Your task to perform on an android device: open app "McDonald's" Image 0: 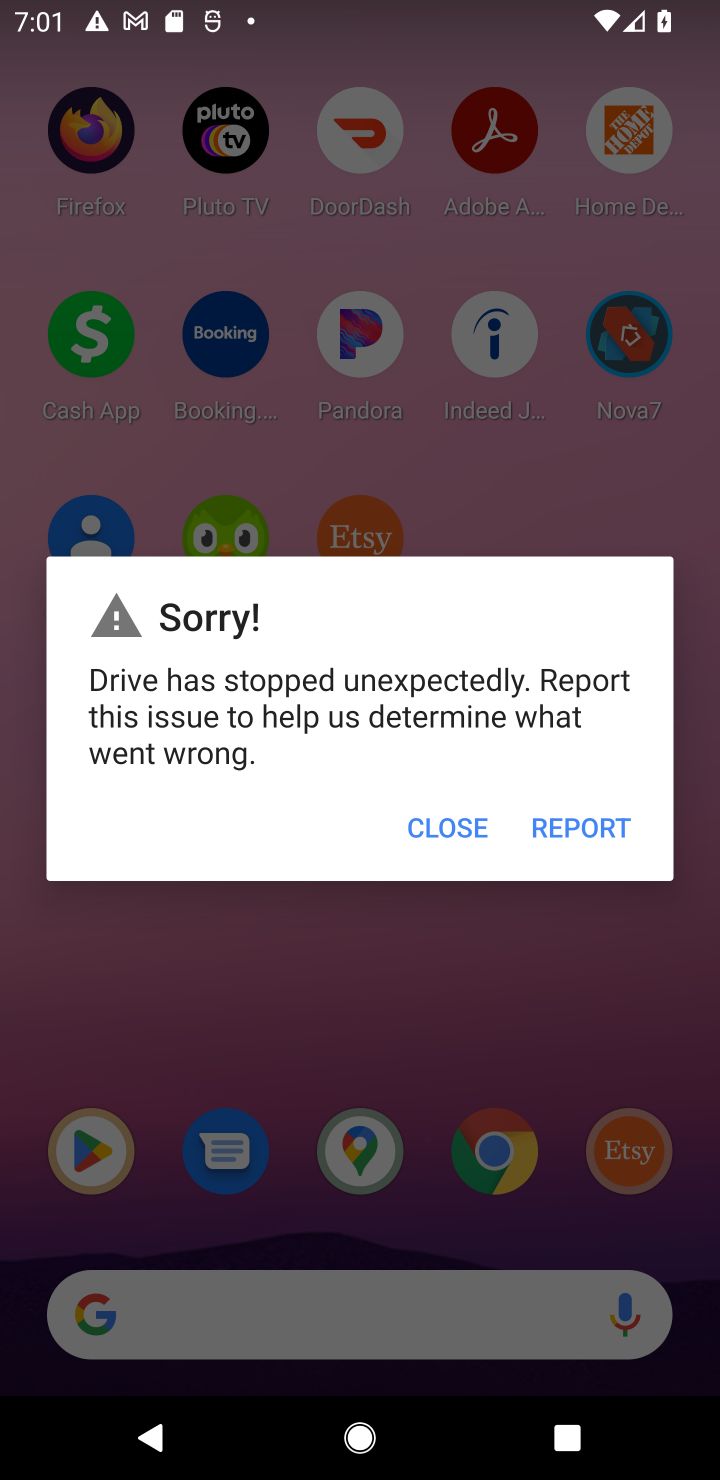
Step 0: press home button
Your task to perform on an android device: open app "McDonald's" Image 1: 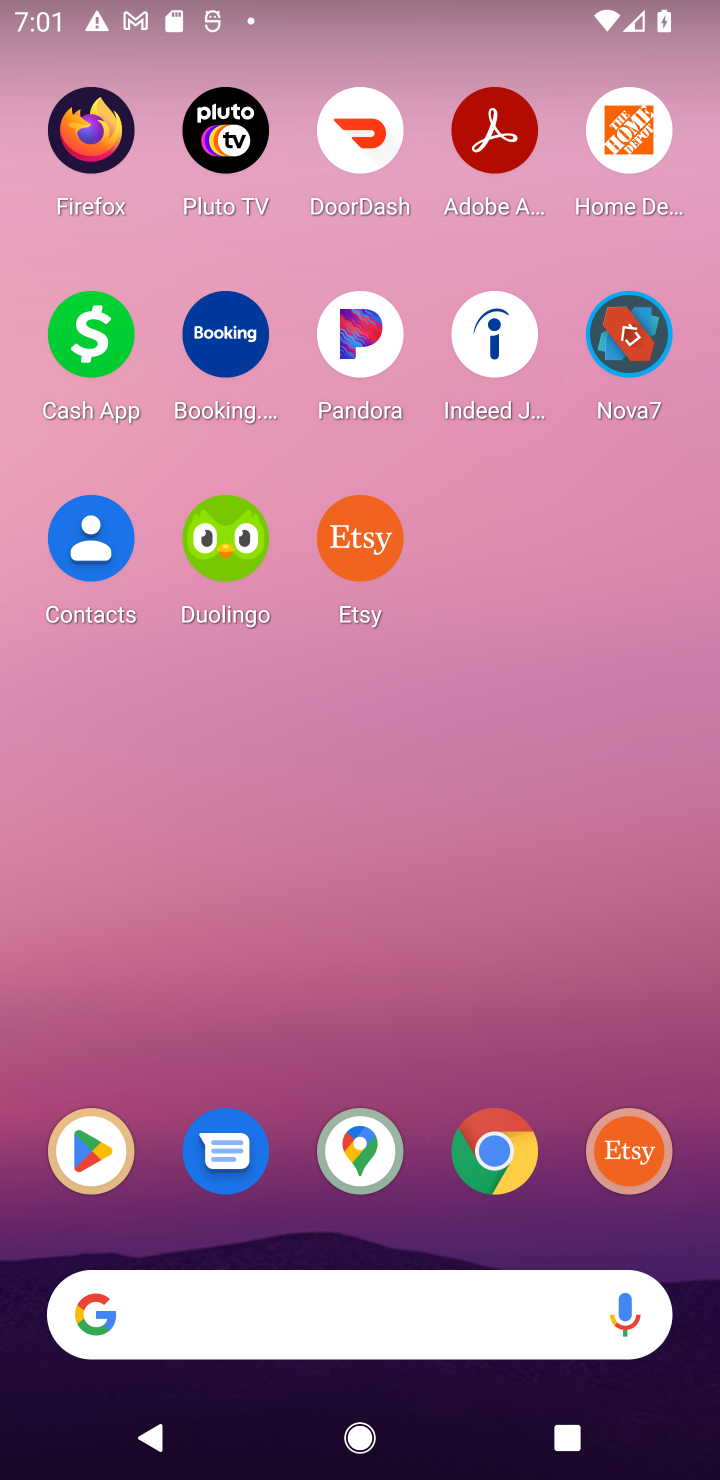
Step 1: task complete